Your task to perform on an android device: Go to eBay Image 0: 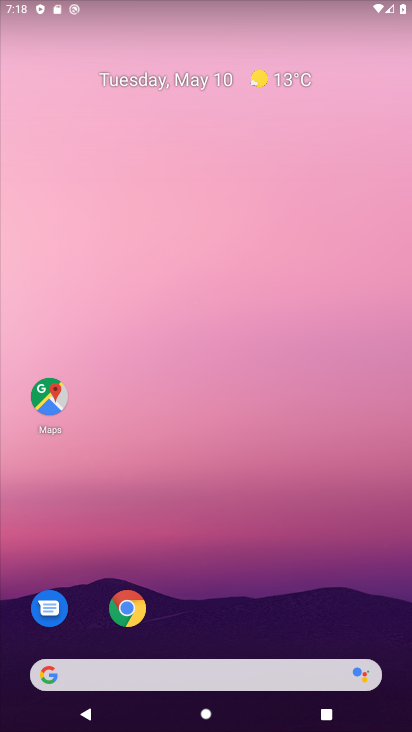
Step 0: click (129, 615)
Your task to perform on an android device: Go to eBay Image 1: 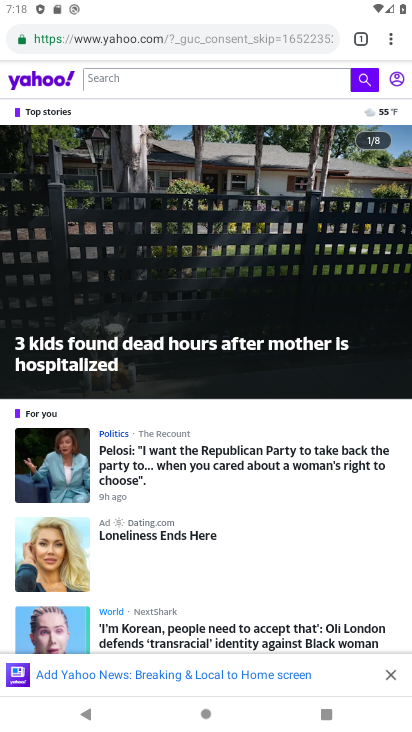
Step 1: click (357, 45)
Your task to perform on an android device: Go to eBay Image 2: 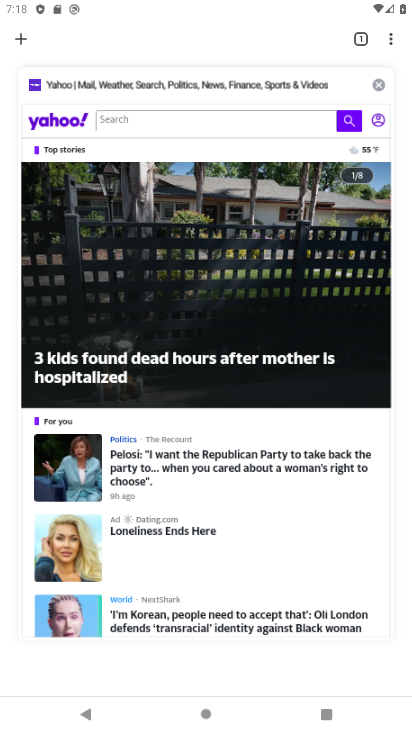
Step 2: click (19, 43)
Your task to perform on an android device: Go to eBay Image 3: 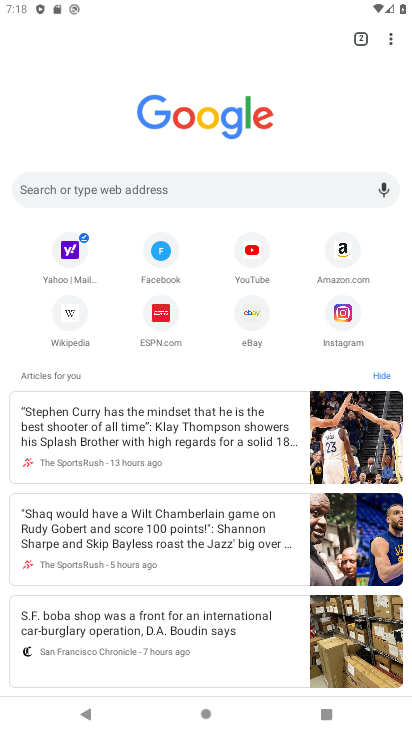
Step 3: click (250, 327)
Your task to perform on an android device: Go to eBay Image 4: 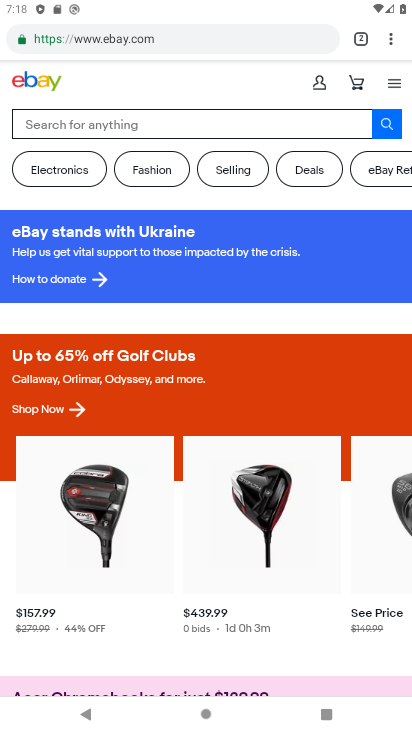
Step 4: task complete